Your task to perform on an android device: turn on priority inbox in the gmail app Image 0: 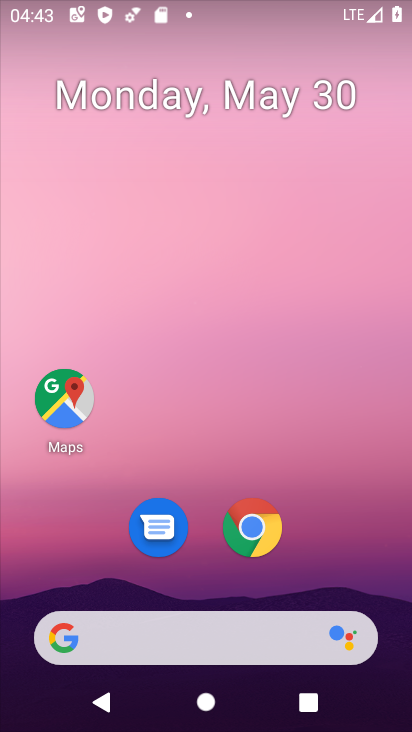
Step 0: drag from (222, 717) to (233, 30)
Your task to perform on an android device: turn on priority inbox in the gmail app Image 1: 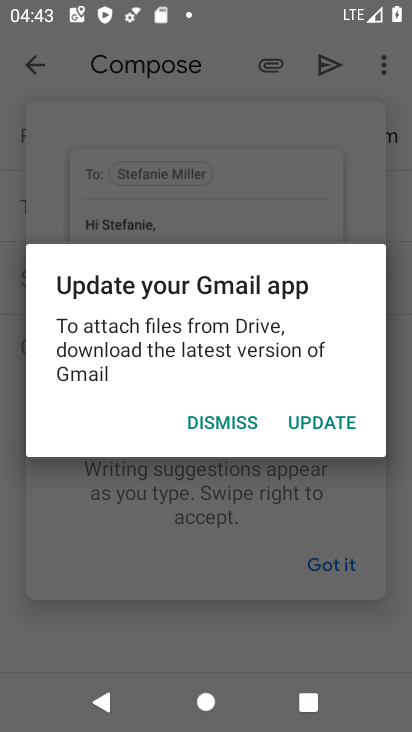
Step 1: click (234, 723)
Your task to perform on an android device: turn on priority inbox in the gmail app Image 2: 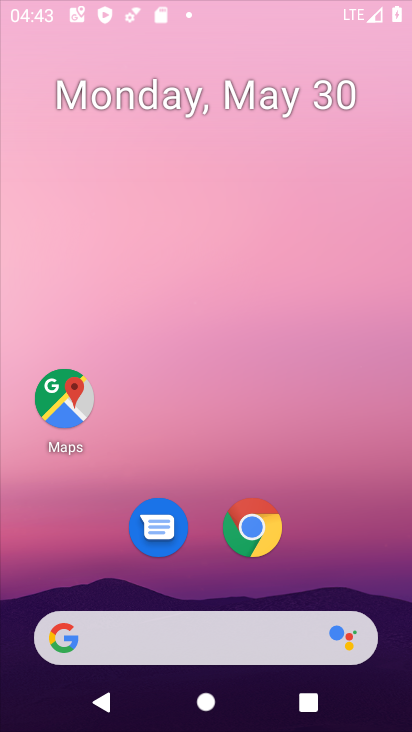
Step 2: press home button
Your task to perform on an android device: turn on priority inbox in the gmail app Image 3: 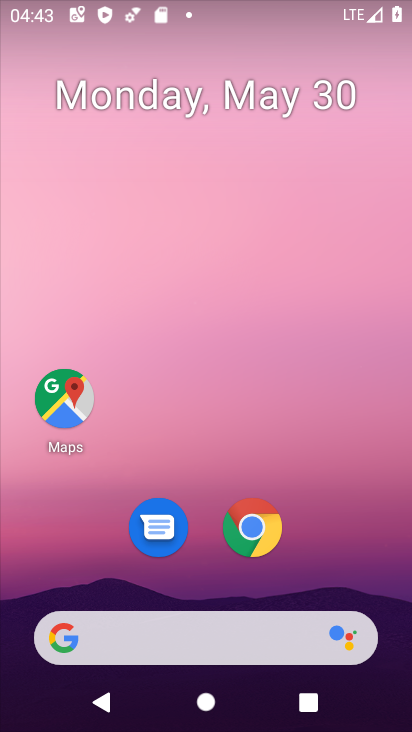
Step 3: drag from (238, 711) to (238, 624)
Your task to perform on an android device: turn on priority inbox in the gmail app Image 4: 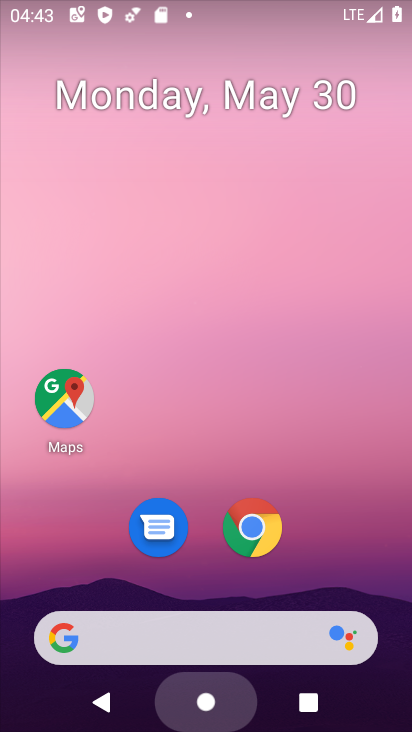
Step 4: drag from (233, 344) to (229, 60)
Your task to perform on an android device: turn on priority inbox in the gmail app Image 5: 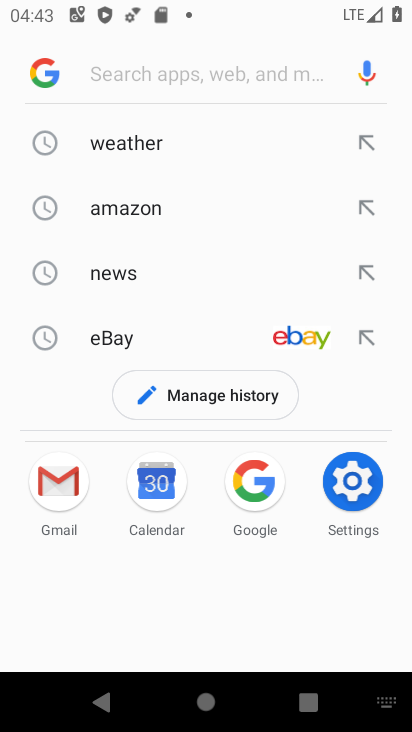
Step 5: press home button
Your task to perform on an android device: turn on priority inbox in the gmail app Image 6: 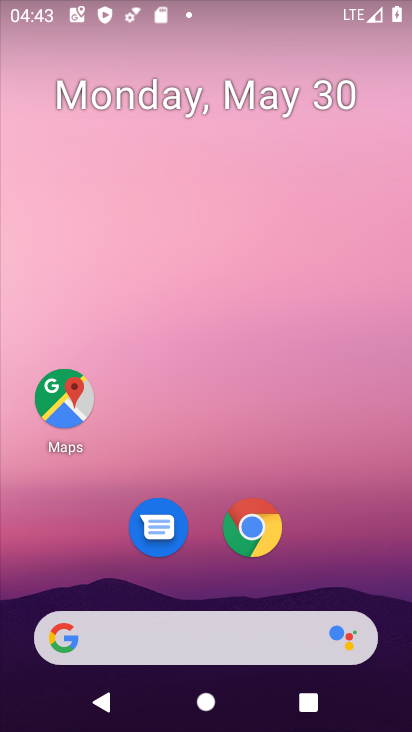
Step 6: drag from (238, 706) to (193, 2)
Your task to perform on an android device: turn on priority inbox in the gmail app Image 7: 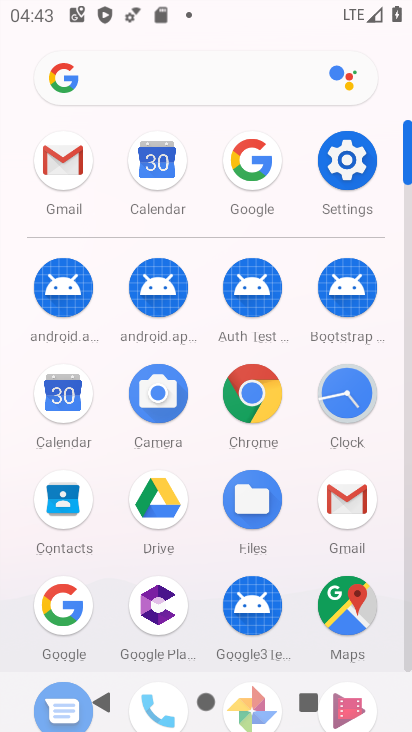
Step 7: click (350, 519)
Your task to perform on an android device: turn on priority inbox in the gmail app Image 8: 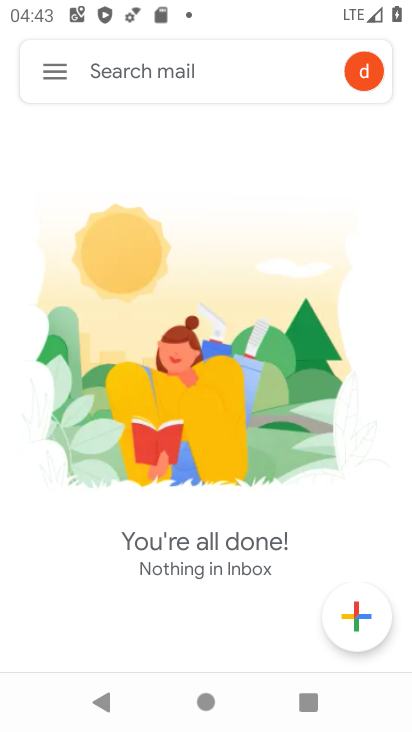
Step 8: click (52, 77)
Your task to perform on an android device: turn on priority inbox in the gmail app Image 9: 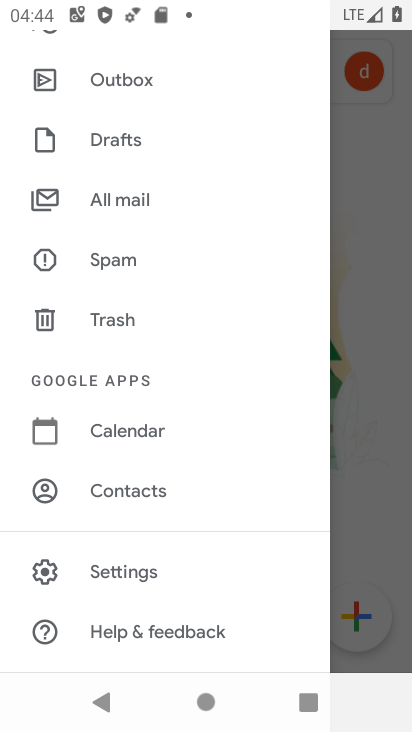
Step 9: click (110, 572)
Your task to perform on an android device: turn on priority inbox in the gmail app Image 10: 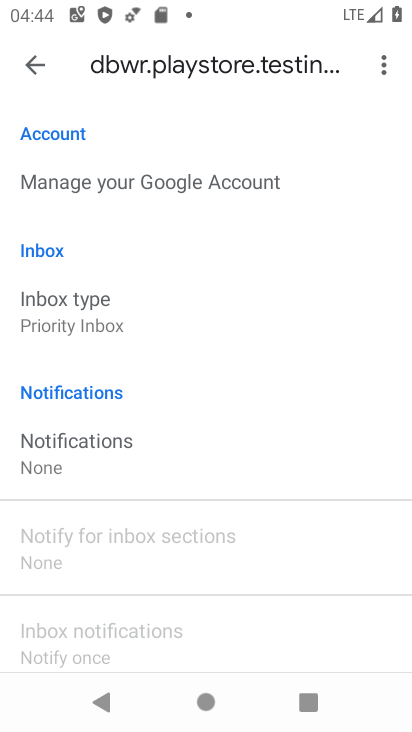
Step 10: task complete